Your task to perform on an android device: Do I have any events this weekend? Image 0: 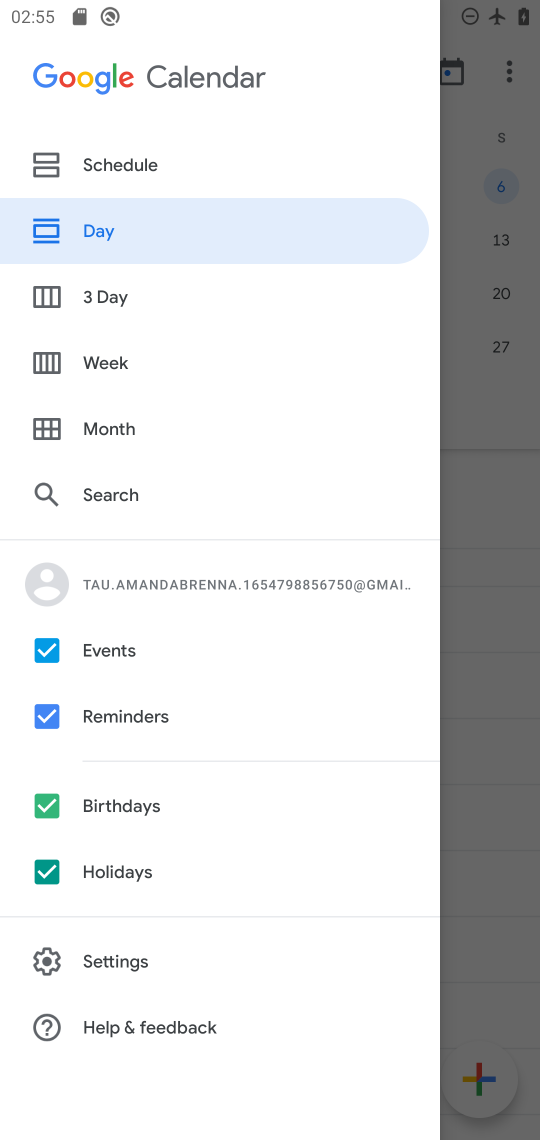
Step 0: press home button
Your task to perform on an android device: Do I have any events this weekend? Image 1: 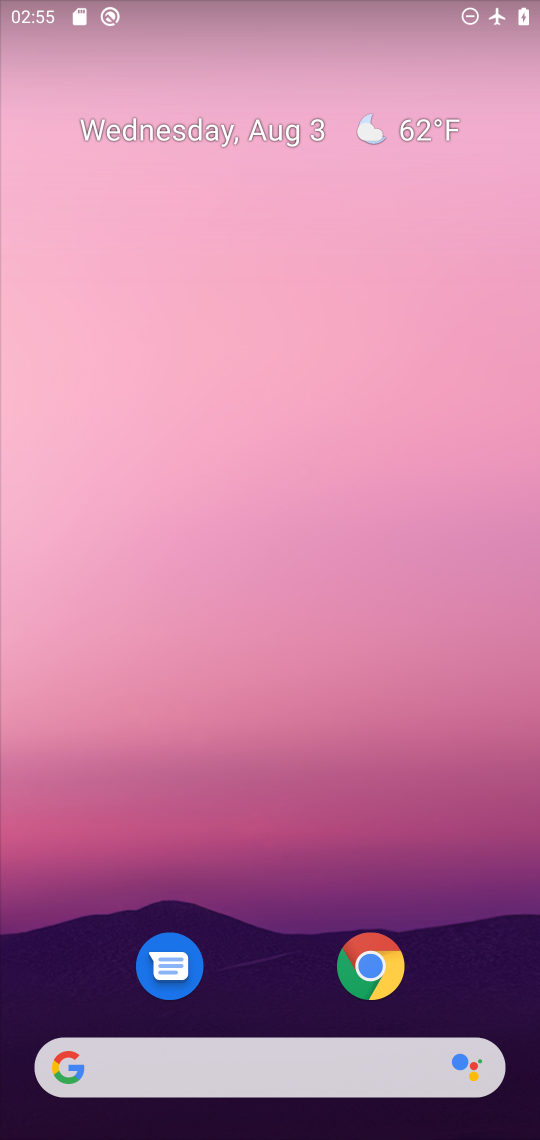
Step 1: drag from (284, 979) to (291, 230)
Your task to perform on an android device: Do I have any events this weekend? Image 2: 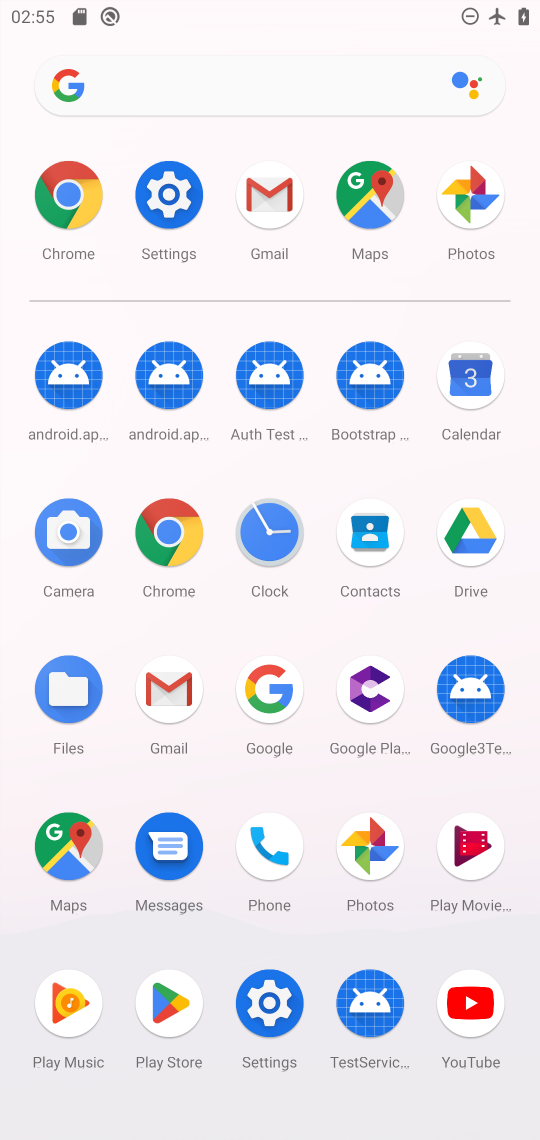
Step 2: click (449, 379)
Your task to perform on an android device: Do I have any events this weekend? Image 3: 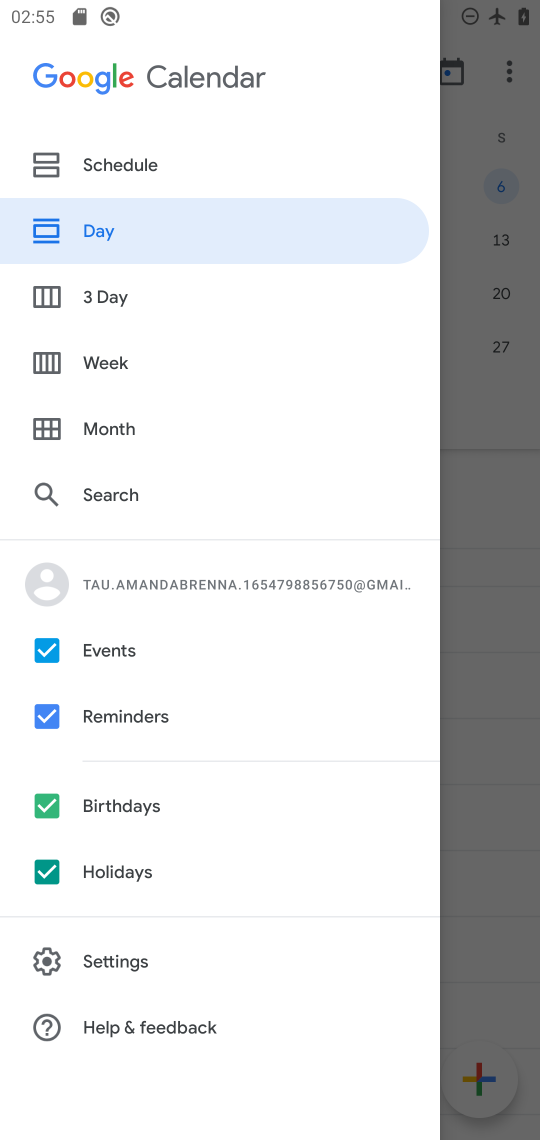
Step 3: click (193, 163)
Your task to perform on an android device: Do I have any events this weekend? Image 4: 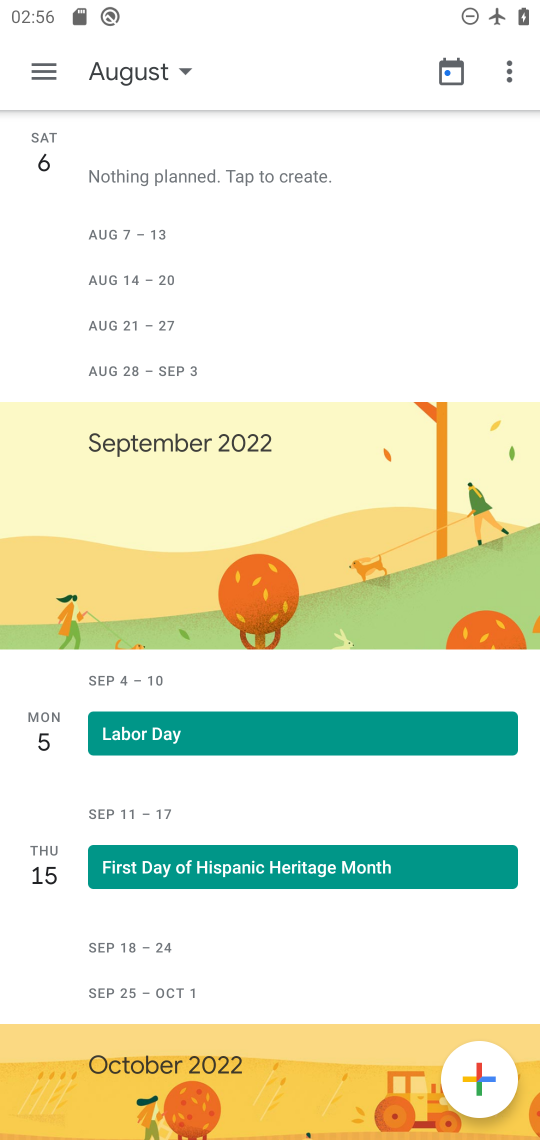
Step 4: click (183, 69)
Your task to perform on an android device: Do I have any events this weekend? Image 5: 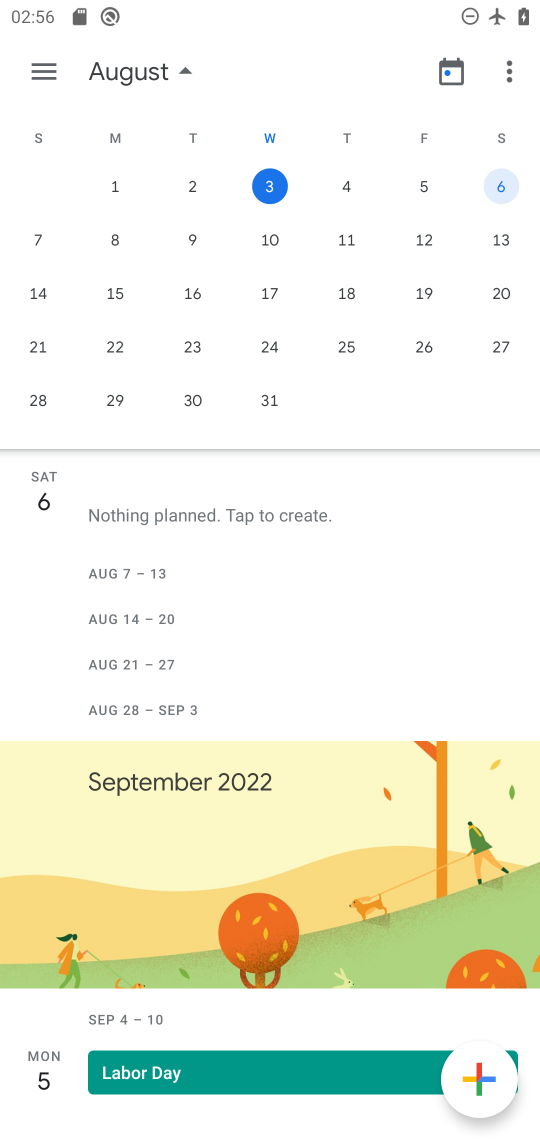
Step 5: click (481, 190)
Your task to perform on an android device: Do I have any events this weekend? Image 6: 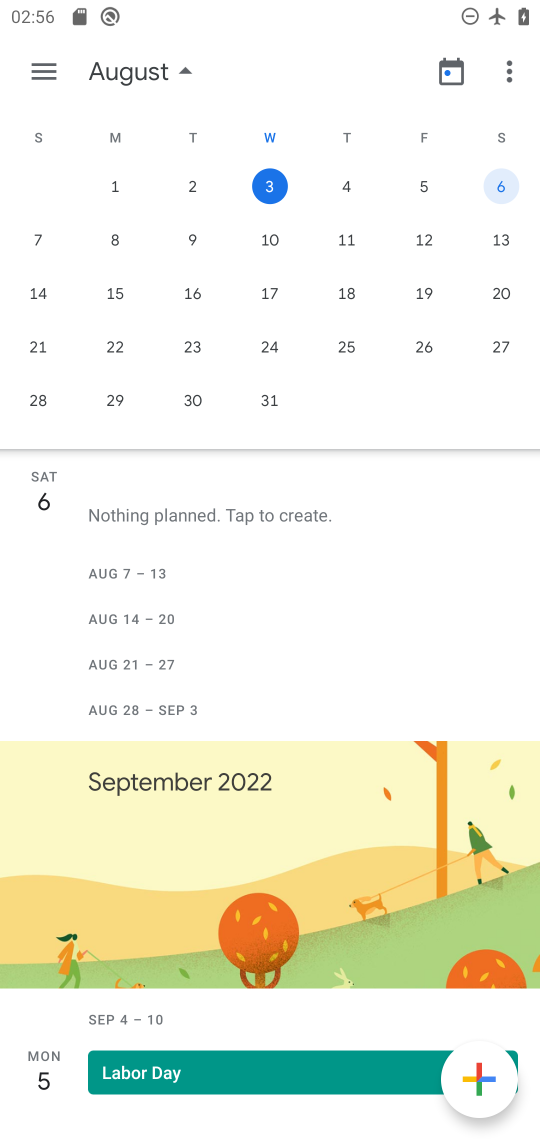
Step 6: click (482, 198)
Your task to perform on an android device: Do I have any events this weekend? Image 7: 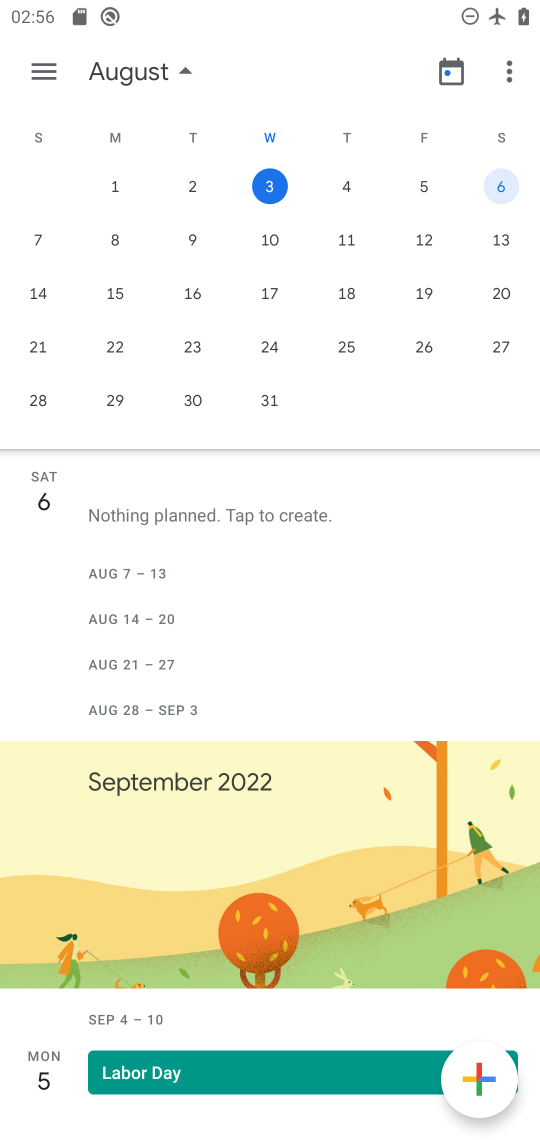
Step 7: task complete